Your task to perform on an android device: Open Android settings Image 0: 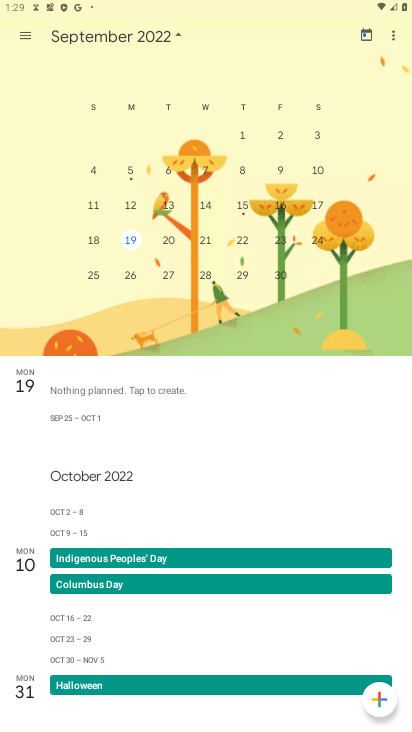
Step 0: press home button
Your task to perform on an android device: Open Android settings Image 1: 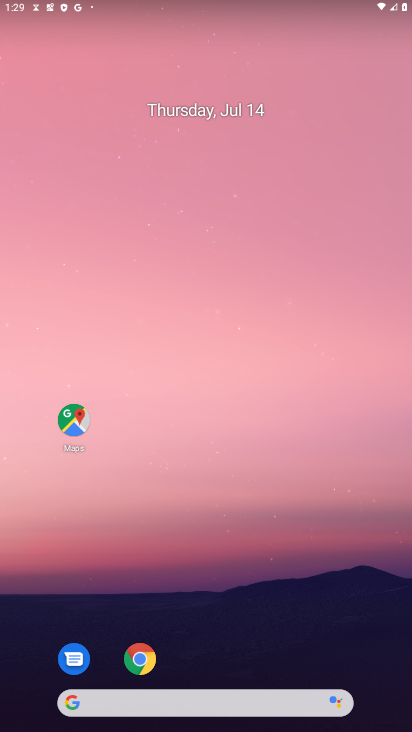
Step 1: drag from (29, 701) to (331, 2)
Your task to perform on an android device: Open Android settings Image 2: 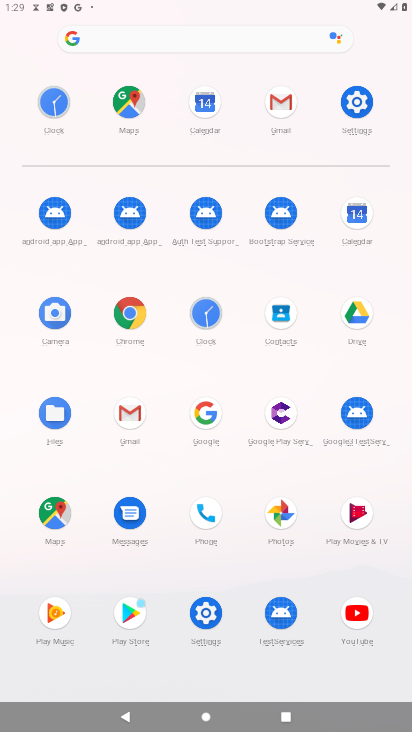
Step 2: click (211, 616)
Your task to perform on an android device: Open Android settings Image 3: 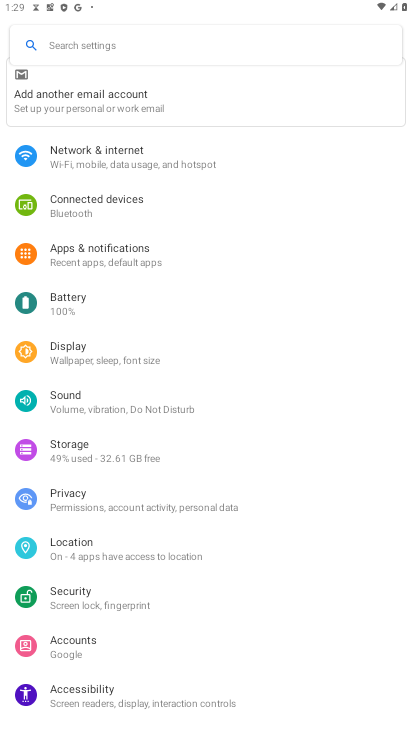
Step 3: drag from (131, 682) to (149, 287)
Your task to perform on an android device: Open Android settings Image 4: 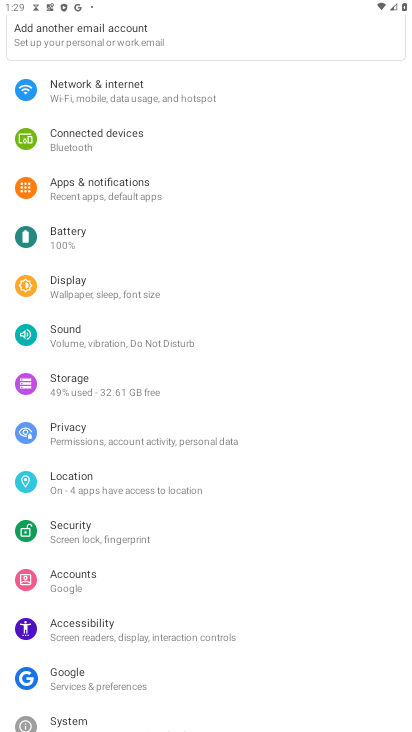
Step 4: drag from (182, 693) to (245, 382)
Your task to perform on an android device: Open Android settings Image 5: 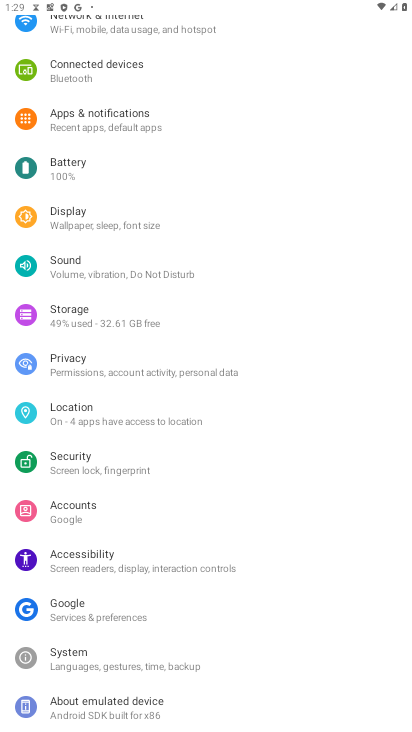
Step 5: click (104, 707)
Your task to perform on an android device: Open Android settings Image 6: 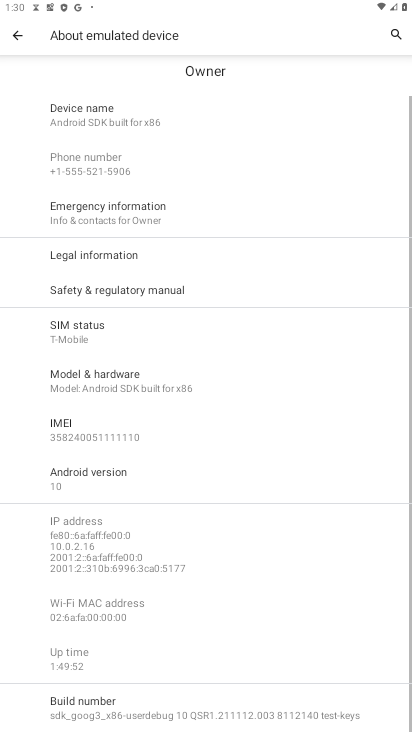
Step 6: task complete